Your task to perform on an android device: read, delete, or share a saved page in the chrome app Image 0: 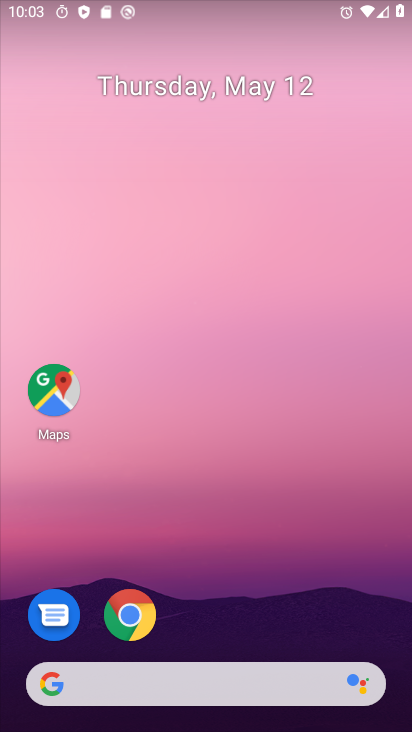
Step 0: drag from (276, 573) to (248, 188)
Your task to perform on an android device: read, delete, or share a saved page in the chrome app Image 1: 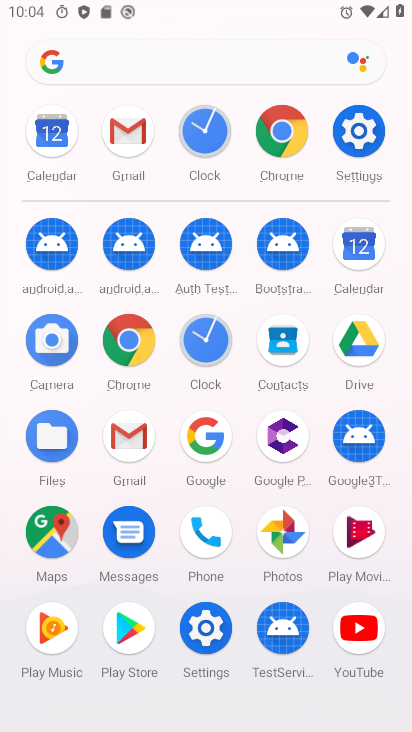
Step 1: click (128, 325)
Your task to perform on an android device: read, delete, or share a saved page in the chrome app Image 2: 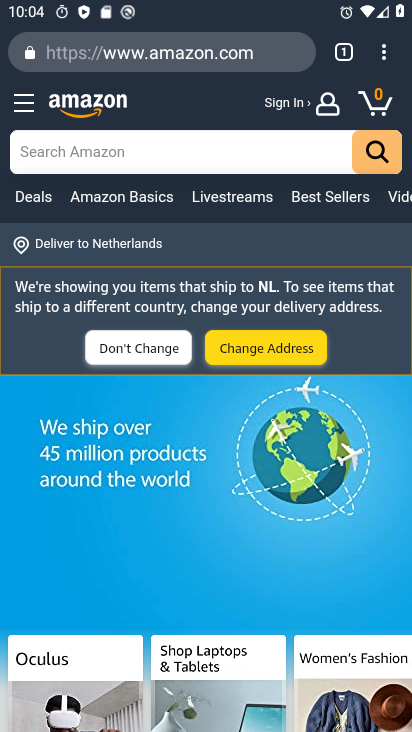
Step 2: task complete